Your task to perform on an android device: all mails in gmail Image 0: 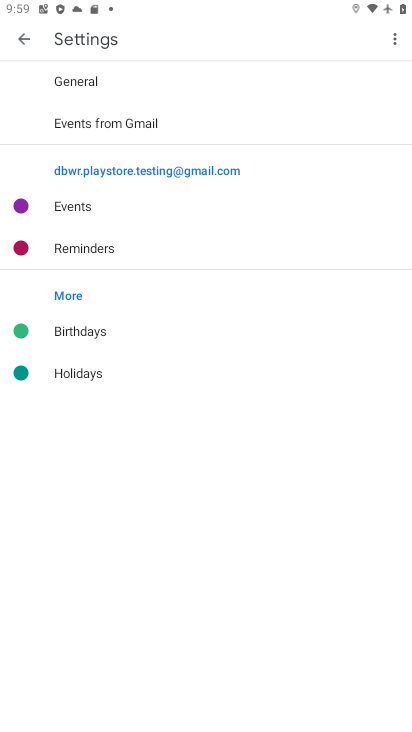
Step 0: press home button
Your task to perform on an android device: all mails in gmail Image 1: 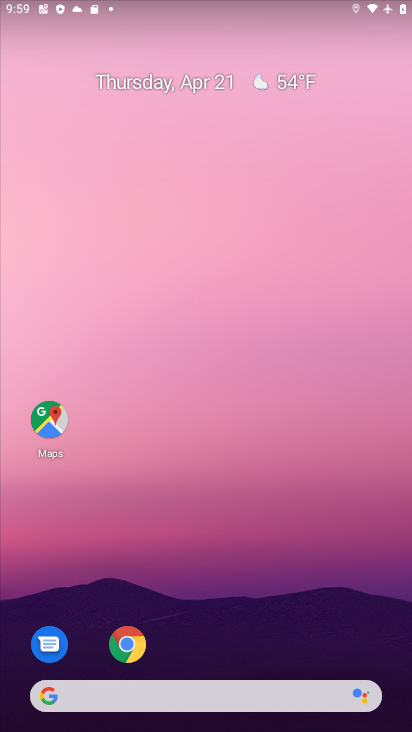
Step 1: drag from (228, 609) to (156, 72)
Your task to perform on an android device: all mails in gmail Image 2: 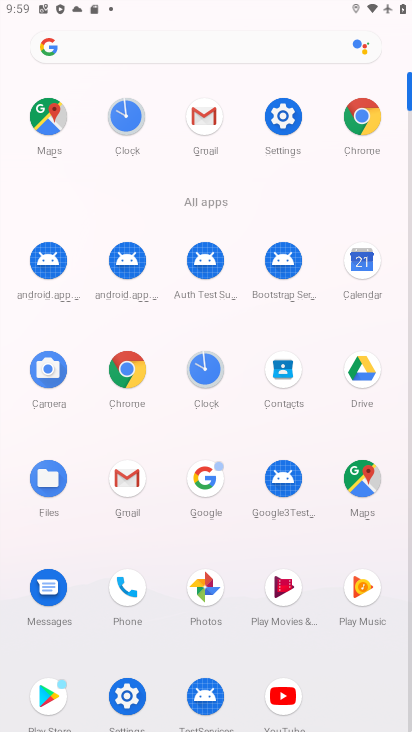
Step 2: click (203, 114)
Your task to perform on an android device: all mails in gmail Image 3: 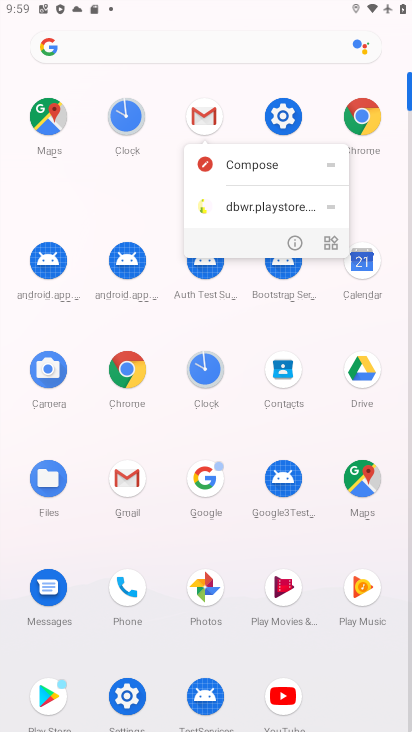
Step 3: click (203, 114)
Your task to perform on an android device: all mails in gmail Image 4: 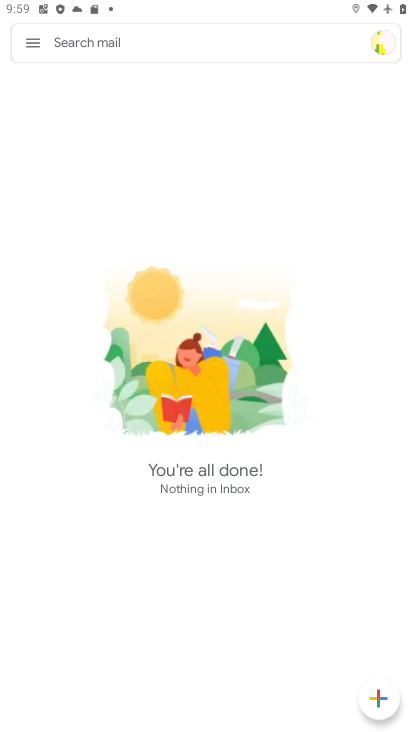
Step 4: click (29, 42)
Your task to perform on an android device: all mails in gmail Image 5: 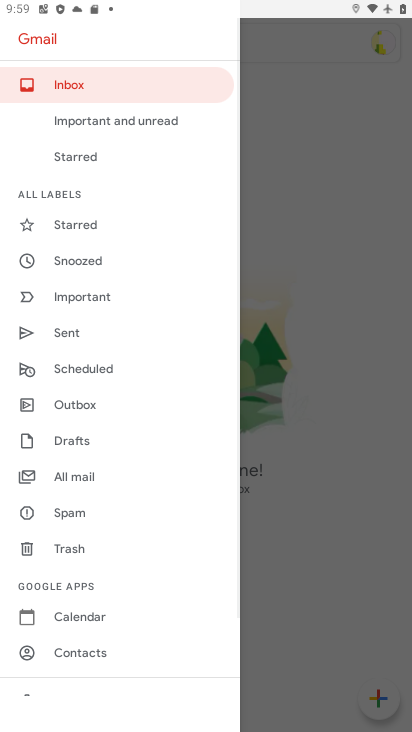
Step 5: click (95, 467)
Your task to perform on an android device: all mails in gmail Image 6: 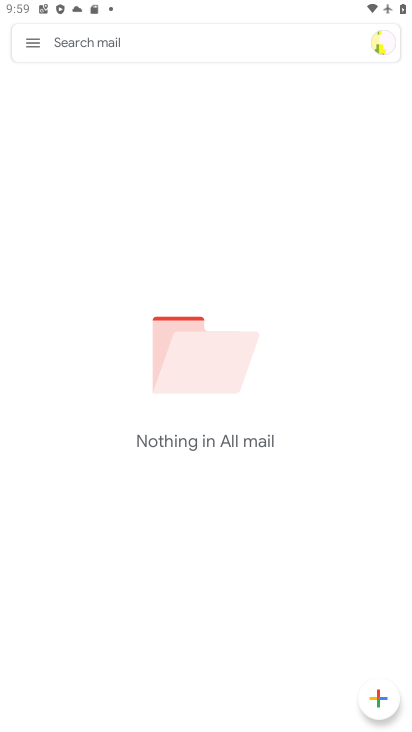
Step 6: task complete